Your task to perform on an android device: turn off picture-in-picture Image 0: 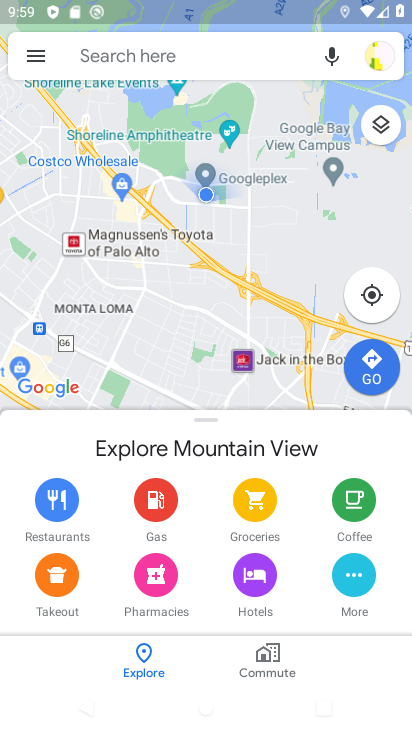
Step 0: press home button
Your task to perform on an android device: turn off picture-in-picture Image 1: 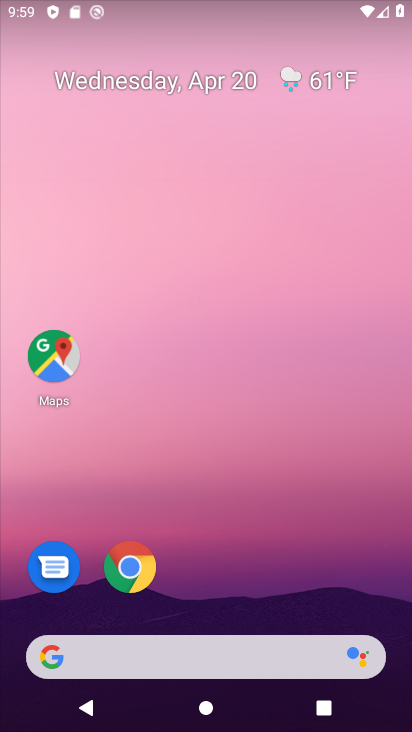
Step 1: click (135, 562)
Your task to perform on an android device: turn off picture-in-picture Image 2: 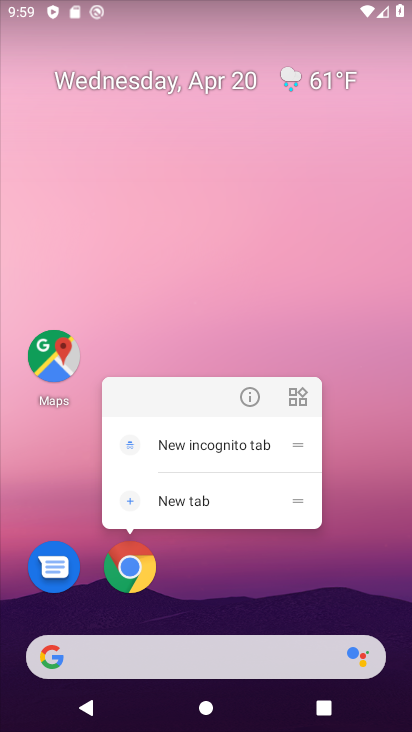
Step 2: click (245, 395)
Your task to perform on an android device: turn off picture-in-picture Image 3: 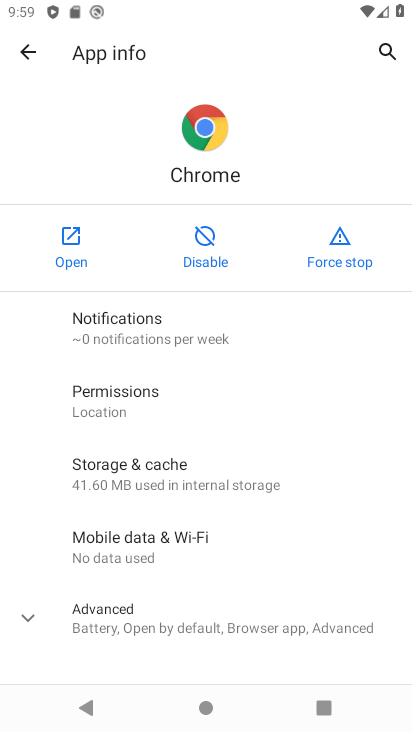
Step 3: drag from (220, 589) to (245, 288)
Your task to perform on an android device: turn off picture-in-picture Image 4: 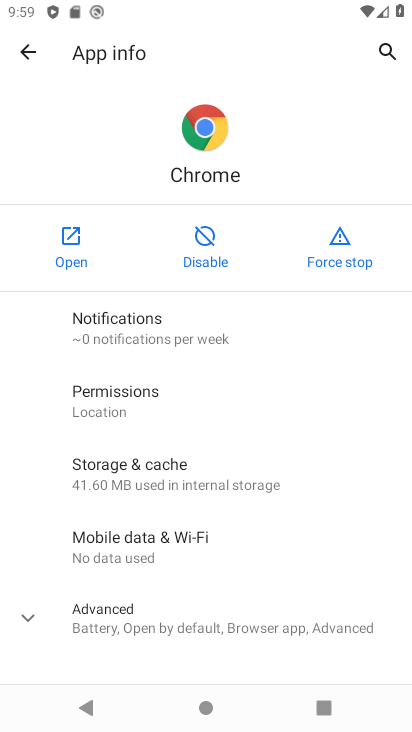
Step 4: click (199, 594)
Your task to perform on an android device: turn off picture-in-picture Image 5: 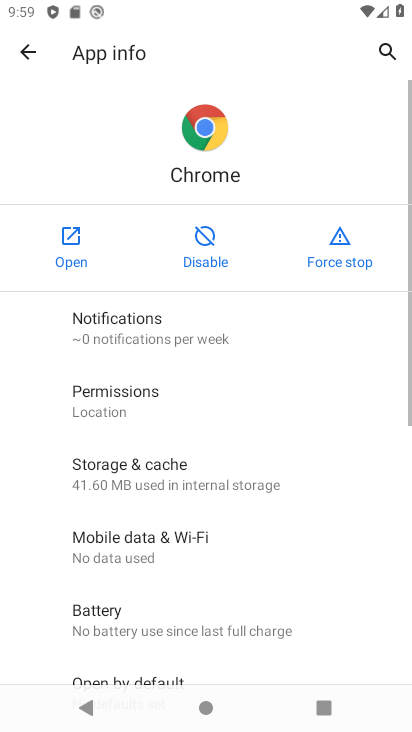
Step 5: drag from (264, 596) to (286, 317)
Your task to perform on an android device: turn off picture-in-picture Image 6: 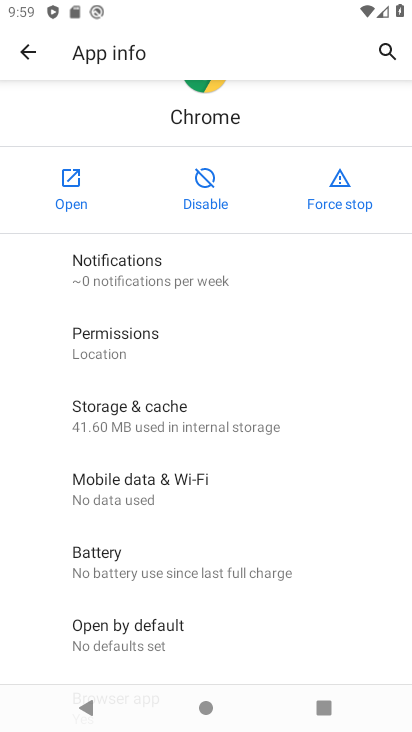
Step 6: drag from (241, 581) to (251, 283)
Your task to perform on an android device: turn off picture-in-picture Image 7: 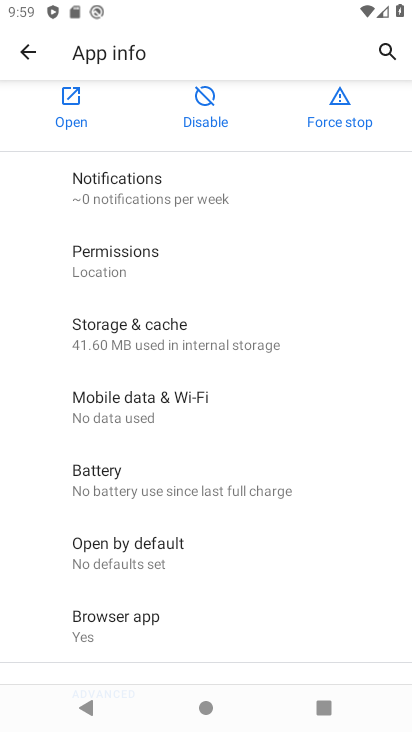
Step 7: drag from (192, 514) to (211, 323)
Your task to perform on an android device: turn off picture-in-picture Image 8: 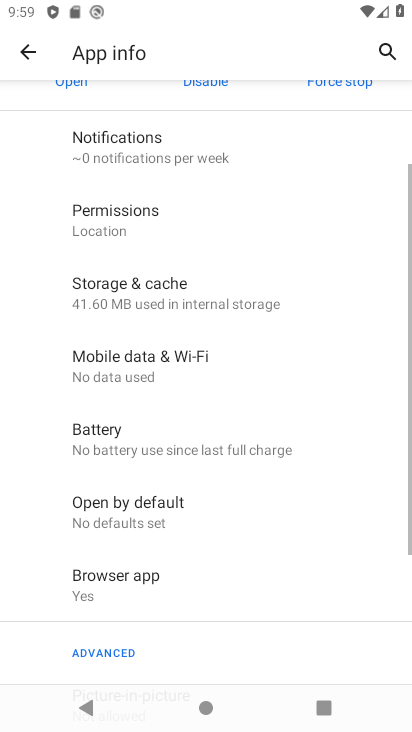
Step 8: drag from (205, 580) to (241, 300)
Your task to perform on an android device: turn off picture-in-picture Image 9: 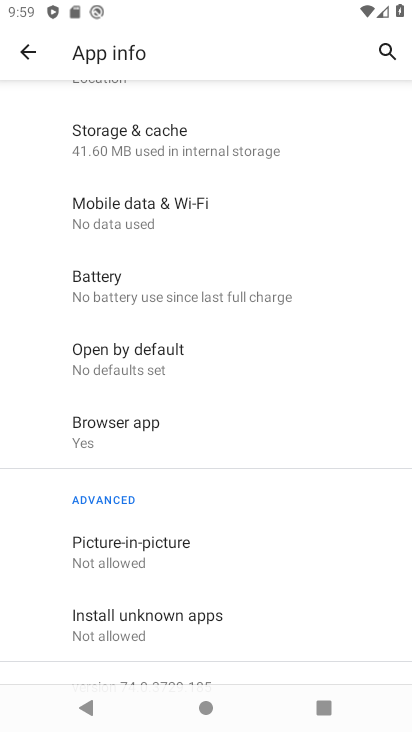
Step 9: click (158, 550)
Your task to perform on an android device: turn off picture-in-picture Image 10: 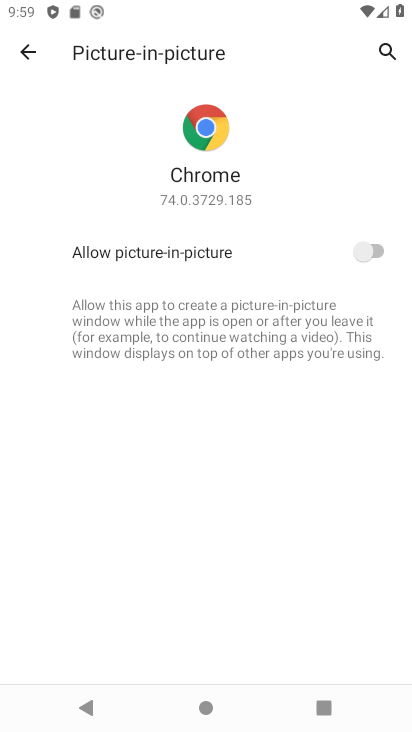
Step 10: task complete